Your task to perform on an android device: Go to privacy settings Image 0: 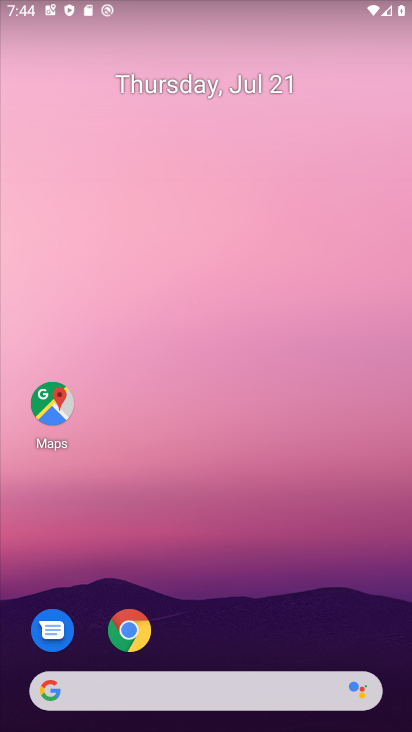
Step 0: drag from (131, 722) to (243, 60)
Your task to perform on an android device: Go to privacy settings Image 1: 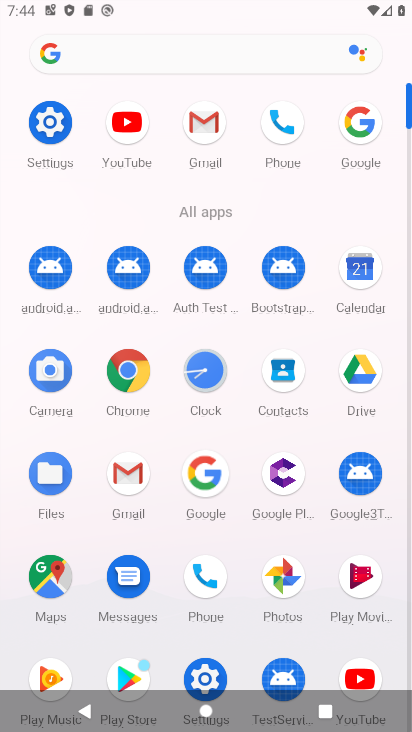
Step 1: click (42, 127)
Your task to perform on an android device: Go to privacy settings Image 2: 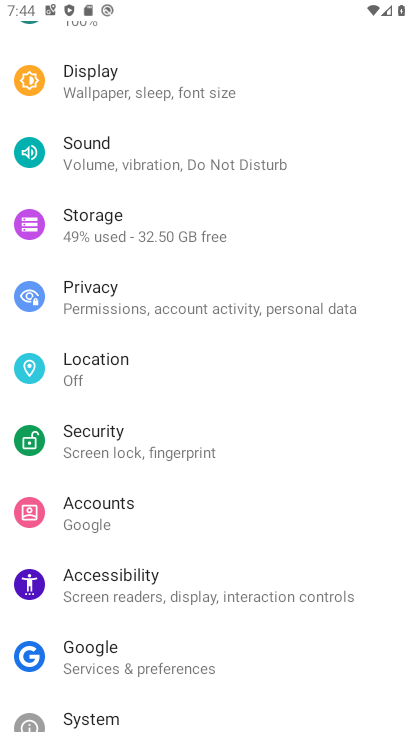
Step 2: drag from (266, 241) to (67, 668)
Your task to perform on an android device: Go to privacy settings Image 3: 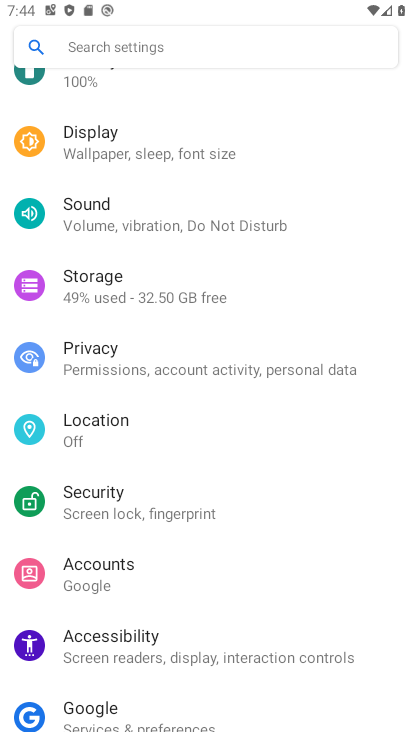
Step 3: drag from (247, 179) to (201, 714)
Your task to perform on an android device: Go to privacy settings Image 4: 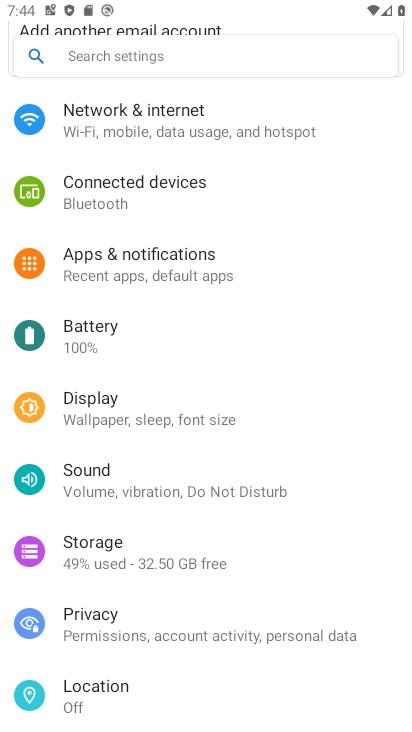
Step 4: click (153, 620)
Your task to perform on an android device: Go to privacy settings Image 5: 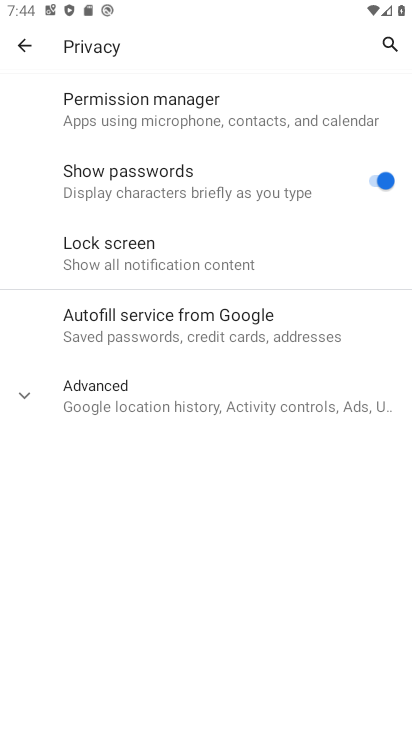
Step 5: task complete